Your task to perform on an android device: refresh tabs in the chrome app Image 0: 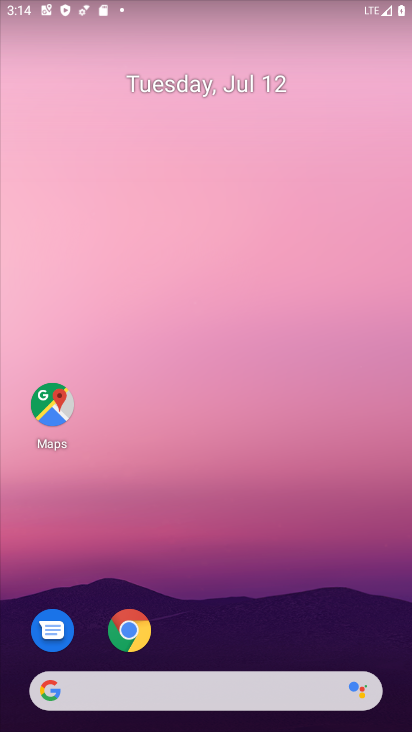
Step 0: drag from (248, 614) to (364, 22)
Your task to perform on an android device: refresh tabs in the chrome app Image 1: 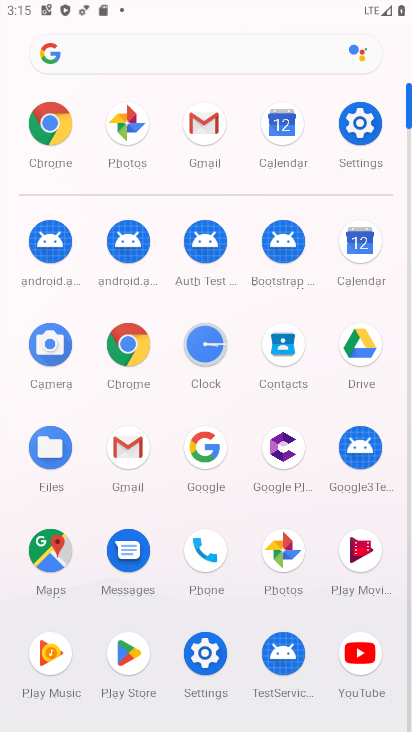
Step 1: click (126, 354)
Your task to perform on an android device: refresh tabs in the chrome app Image 2: 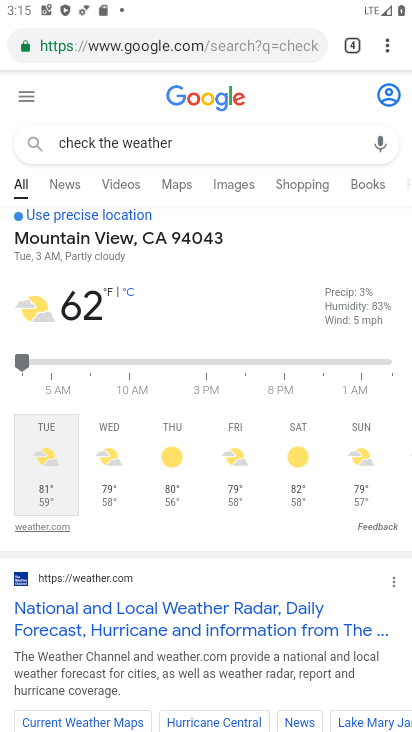
Step 2: click (384, 56)
Your task to perform on an android device: refresh tabs in the chrome app Image 3: 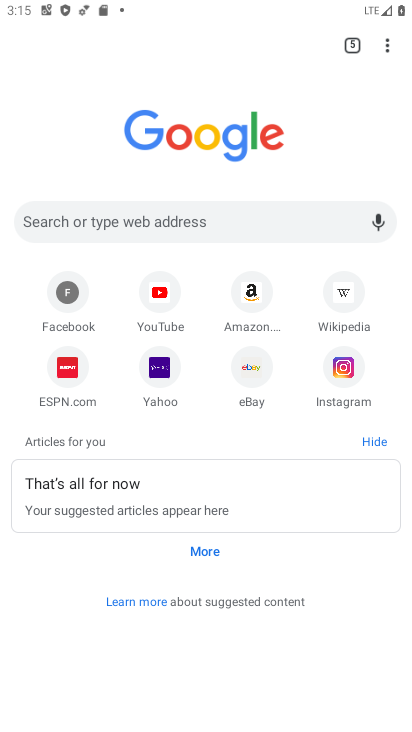
Step 3: click (384, 44)
Your task to perform on an android device: refresh tabs in the chrome app Image 4: 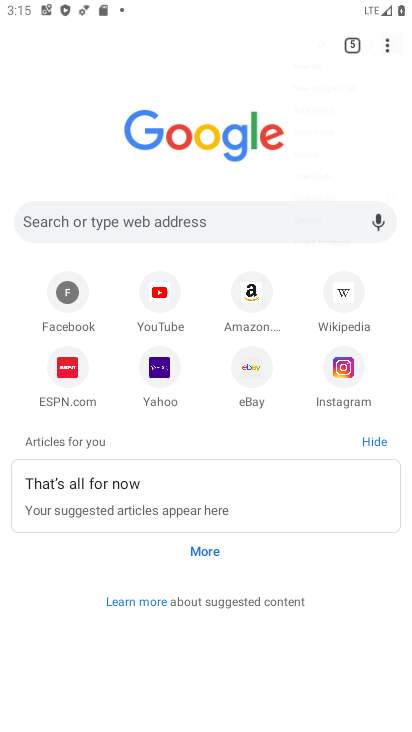
Step 4: click (385, 43)
Your task to perform on an android device: refresh tabs in the chrome app Image 5: 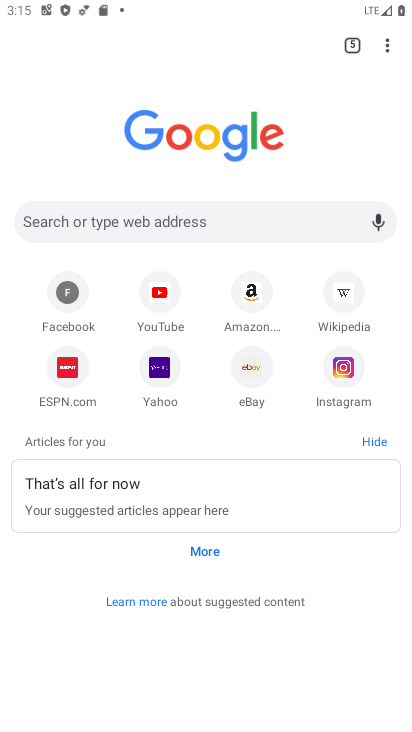
Step 5: task complete